Your task to perform on an android device: open a bookmark in the chrome app Image 0: 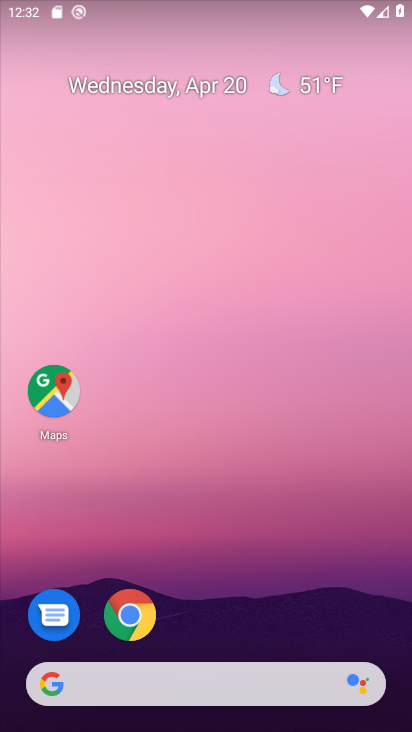
Step 0: click (133, 617)
Your task to perform on an android device: open a bookmark in the chrome app Image 1: 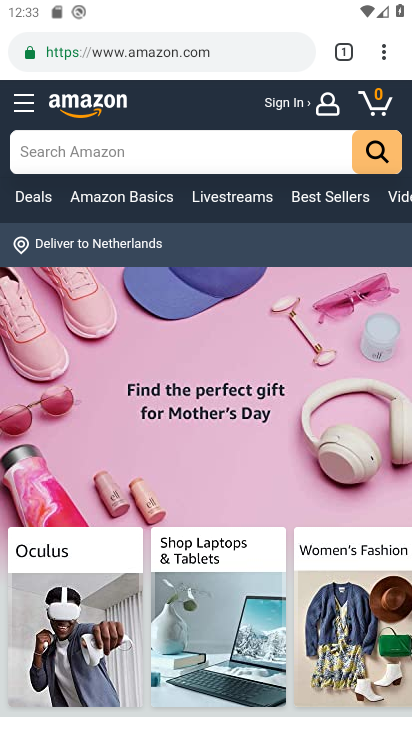
Step 1: task complete